Your task to perform on an android device: set the timer Image 0: 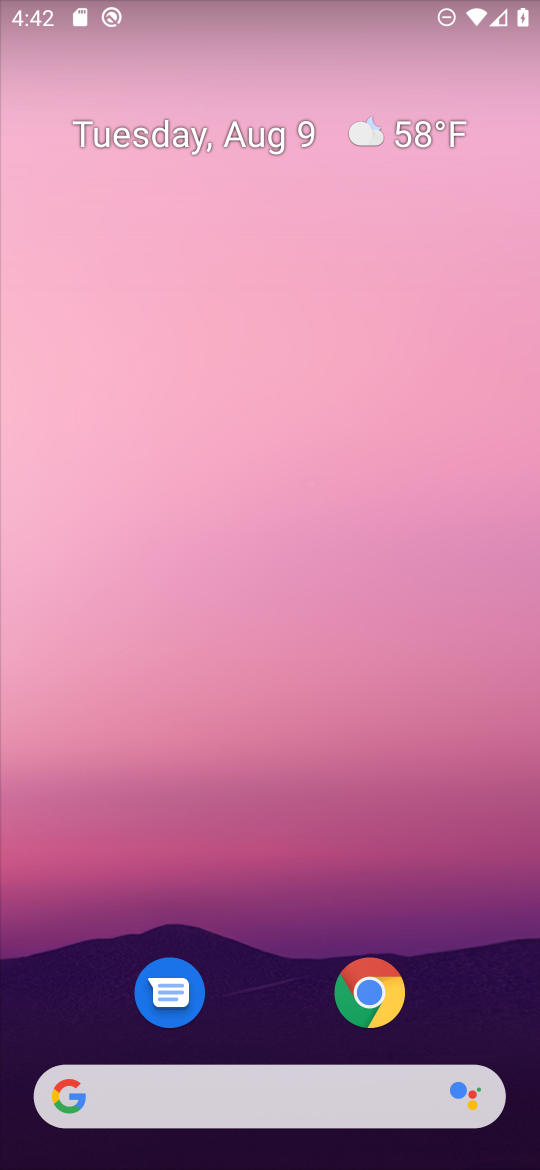
Step 0: drag from (171, 1103) to (353, 534)
Your task to perform on an android device: set the timer Image 1: 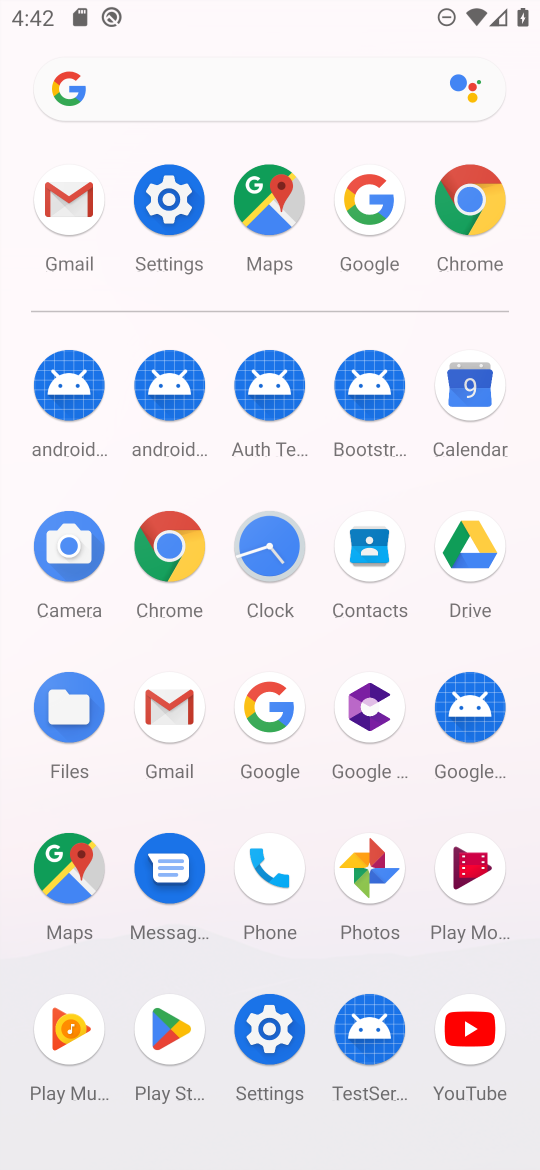
Step 1: click (280, 582)
Your task to perform on an android device: set the timer Image 2: 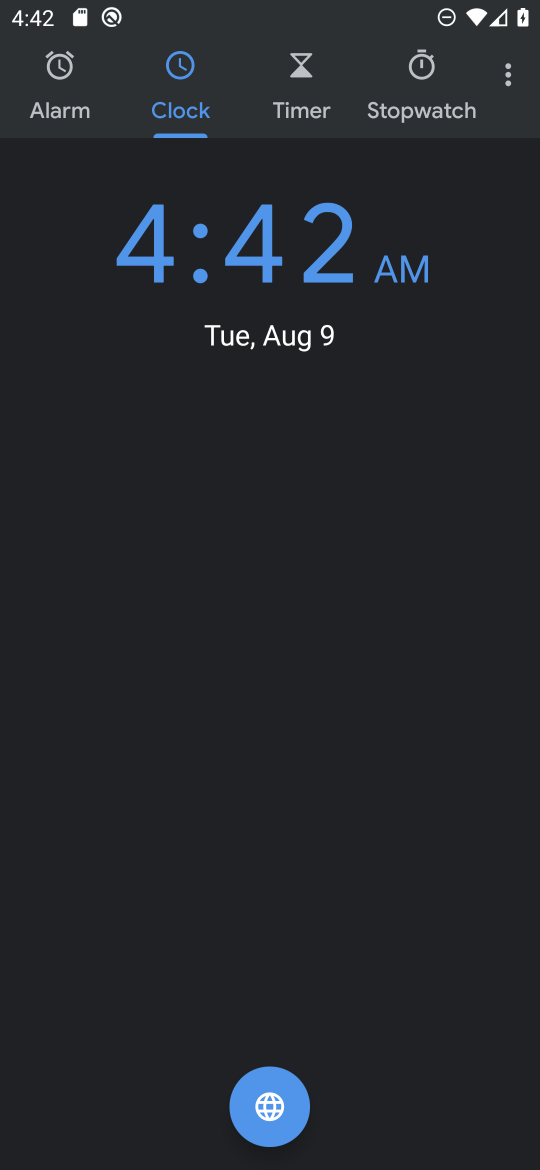
Step 2: click (315, 91)
Your task to perform on an android device: set the timer Image 3: 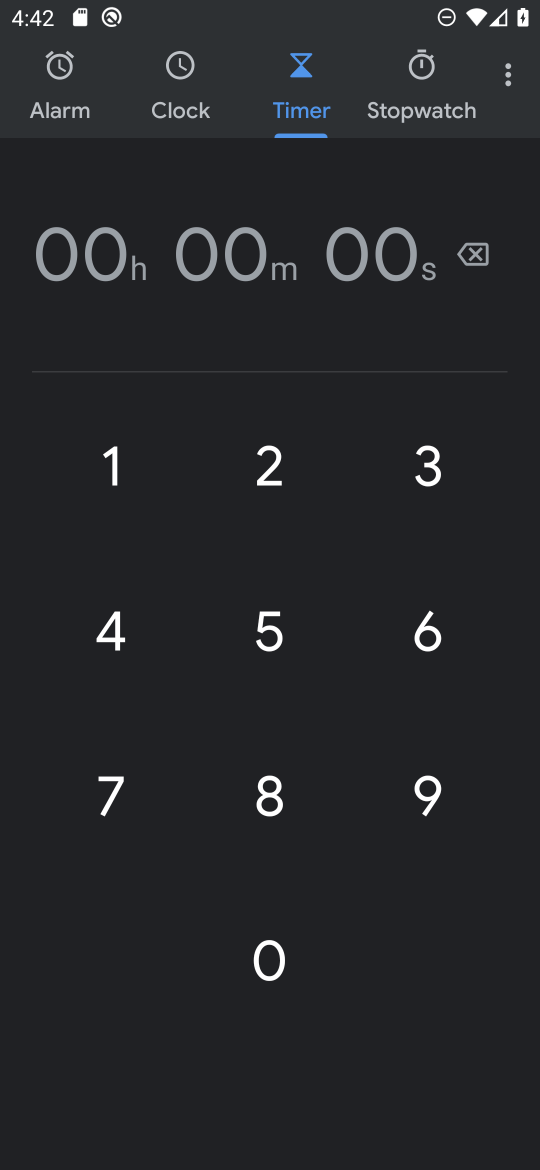
Step 3: click (274, 639)
Your task to perform on an android device: set the timer Image 4: 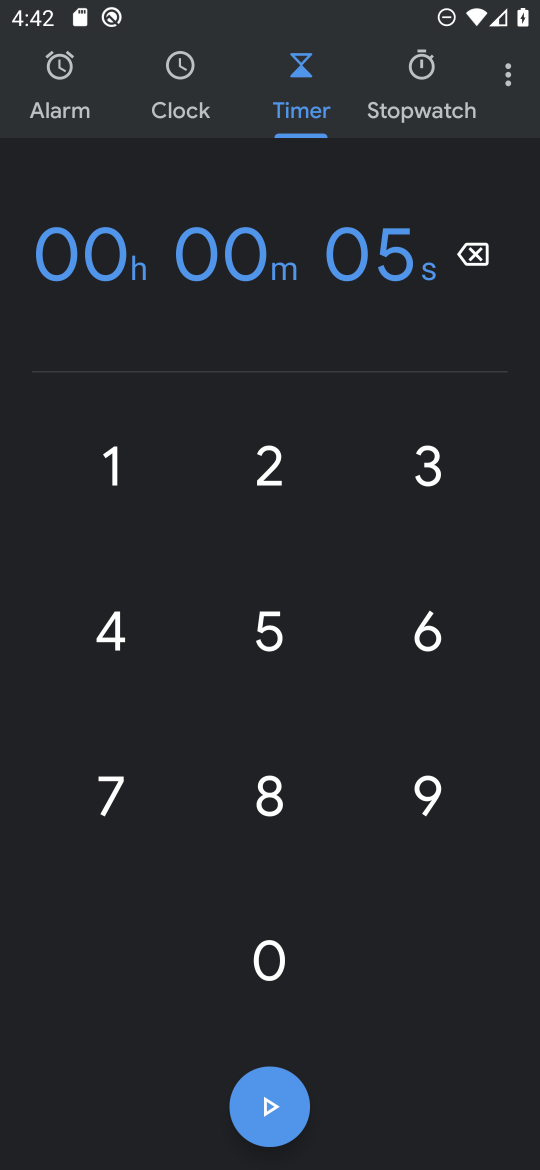
Step 4: click (439, 642)
Your task to perform on an android device: set the timer Image 5: 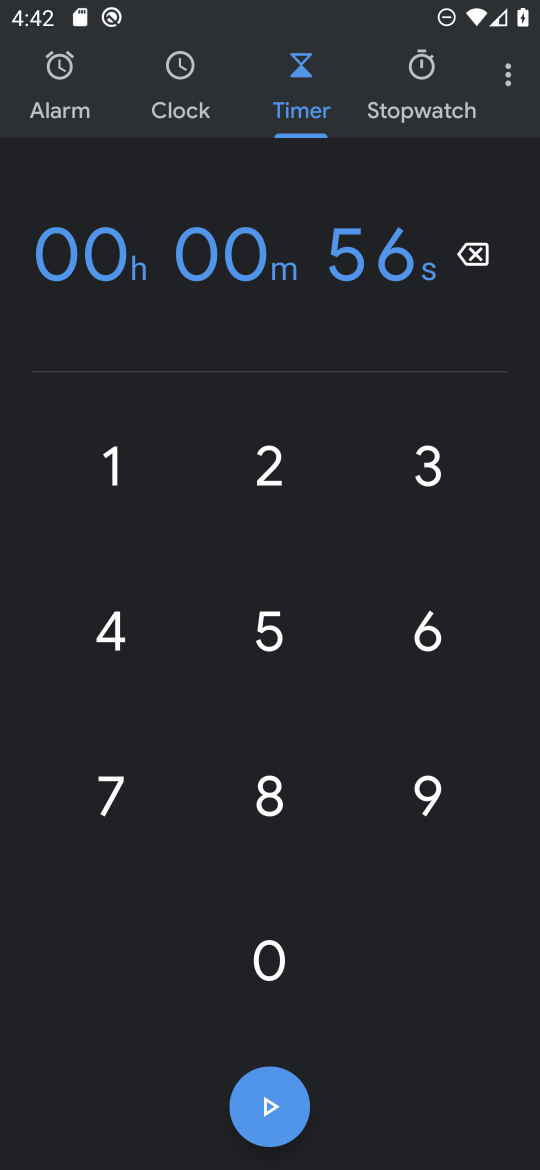
Step 5: click (287, 473)
Your task to perform on an android device: set the timer Image 6: 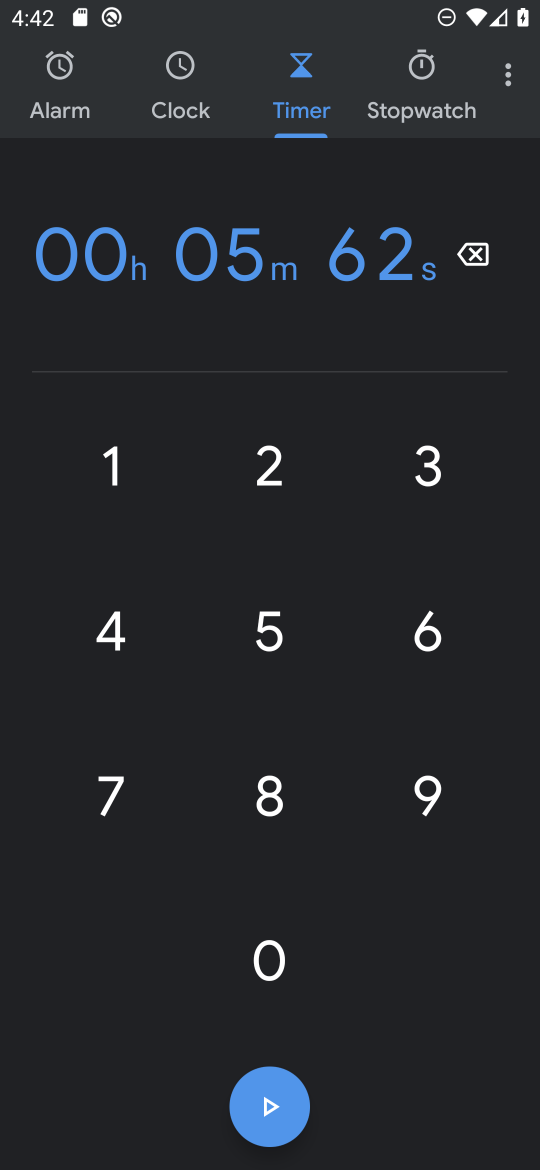
Step 6: click (386, 468)
Your task to perform on an android device: set the timer Image 7: 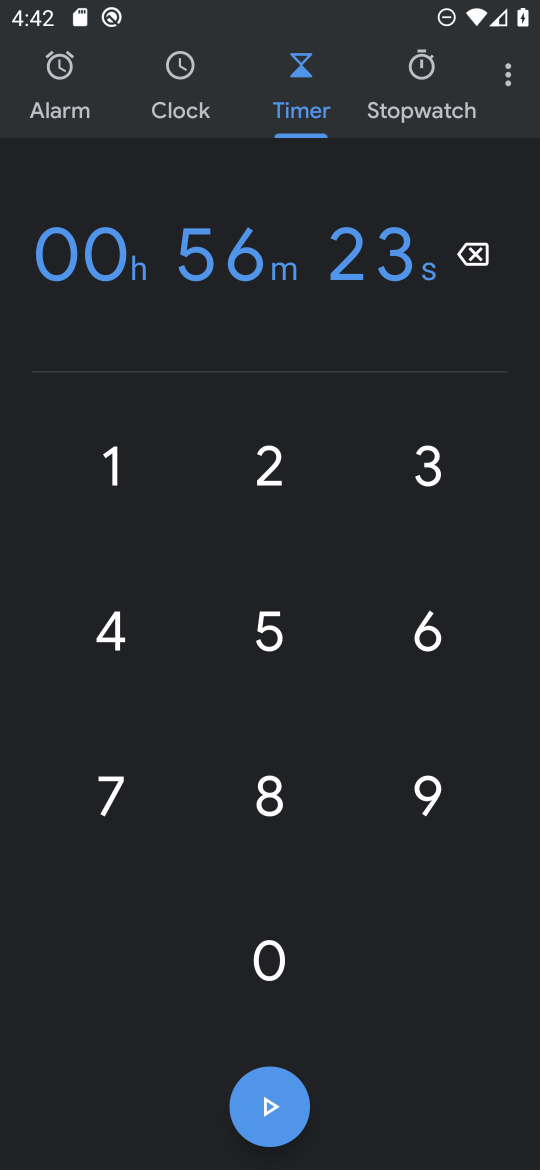
Step 7: click (259, 795)
Your task to perform on an android device: set the timer Image 8: 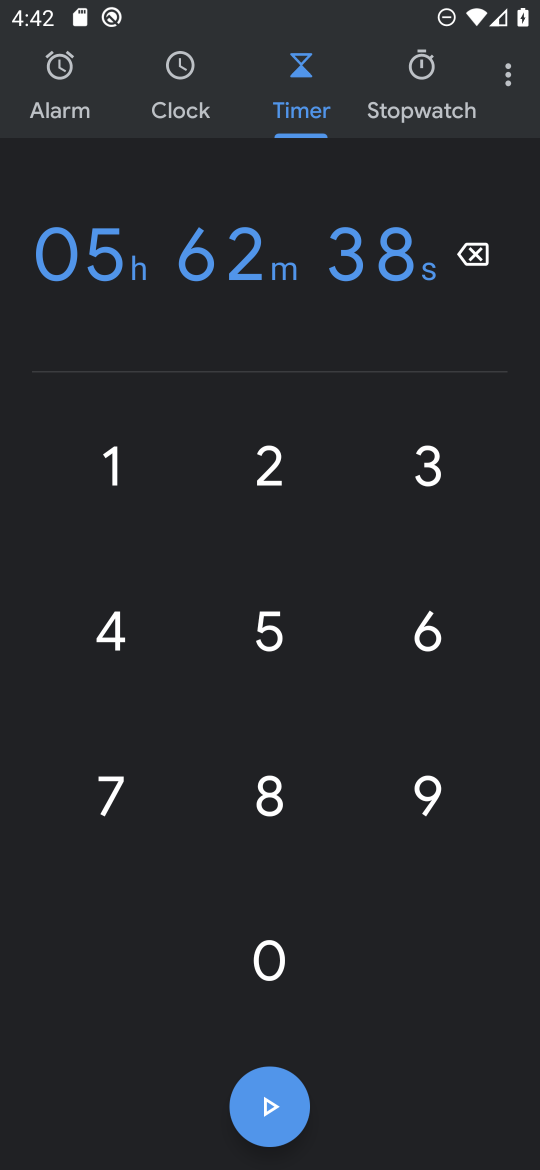
Step 8: click (425, 798)
Your task to perform on an android device: set the timer Image 9: 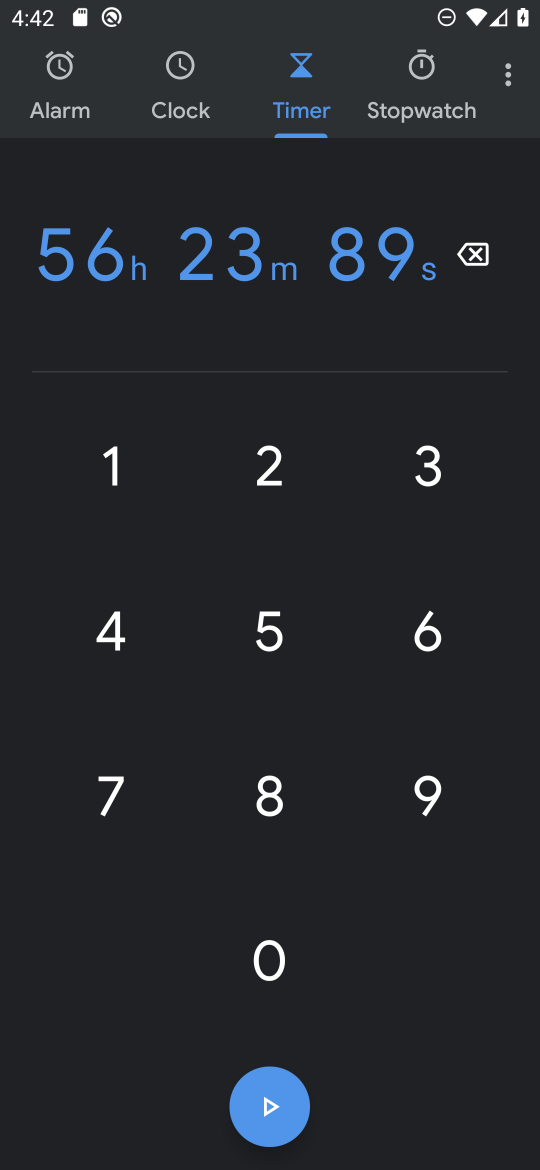
Step 9: click (285, 1114)
Your task to perform on an android device: set the timer Image 10: 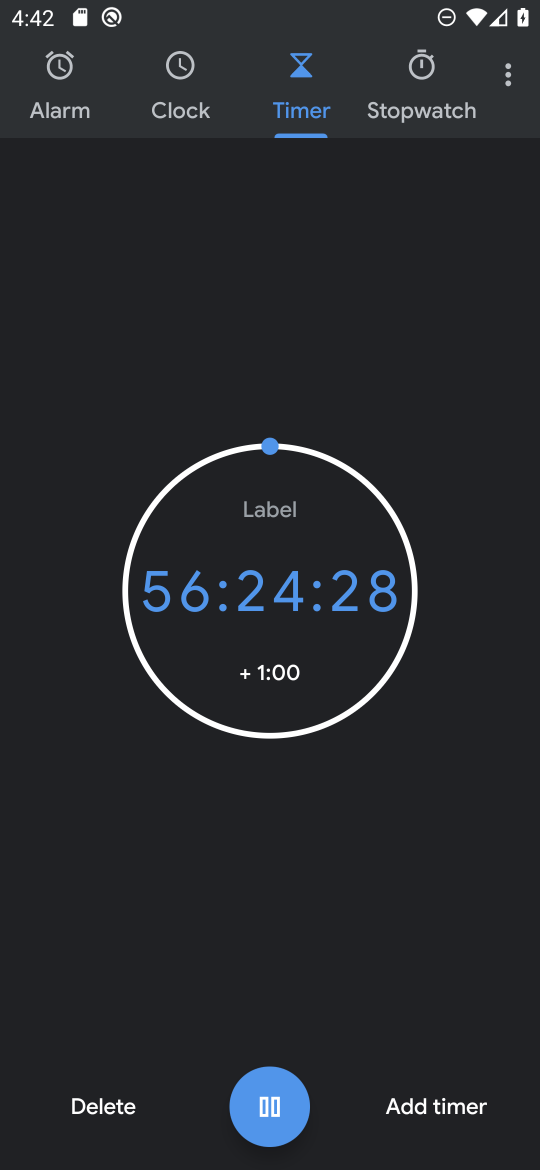
Step 10: task complete